Your task to perform on an android device: What's on my calendar today? Image 0: 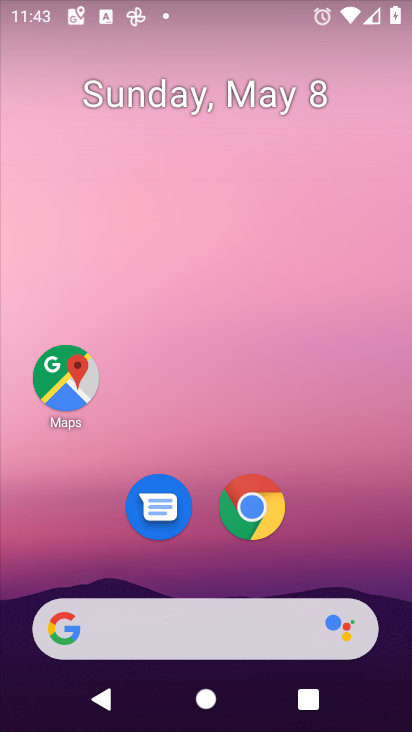
Step 0: drag from (276, 653) to (375, 26)
Your task to perform on an android device: What's on my calendar today? Image 1: 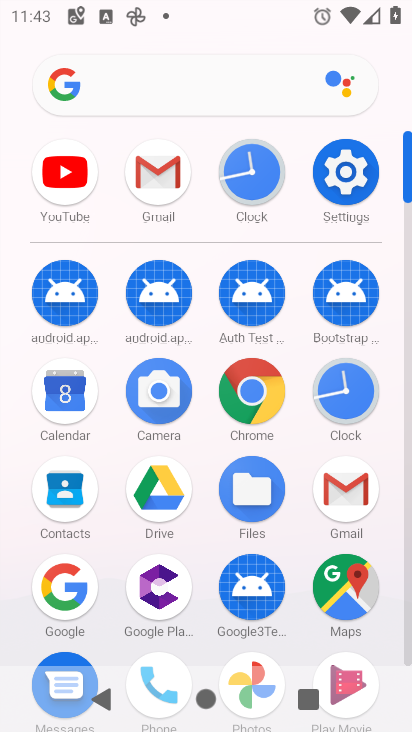
Step 1: click (56, 396)
Your task to perform on an android device: What's on my calendar today? Image 2: 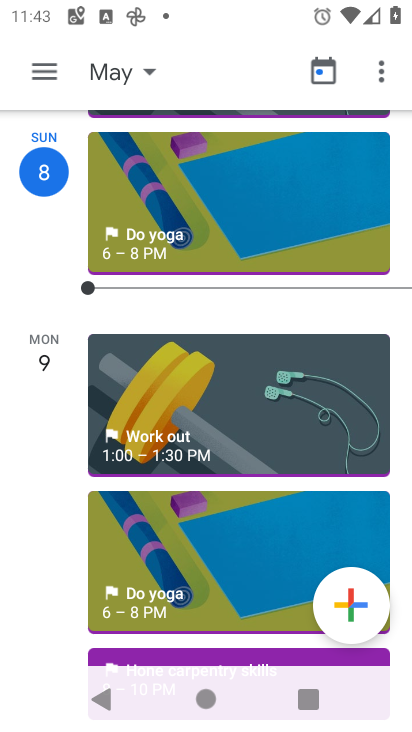
Step 2: click (111, 73)
Your task to perform on an android device: What's on my calendar today? Image 3: 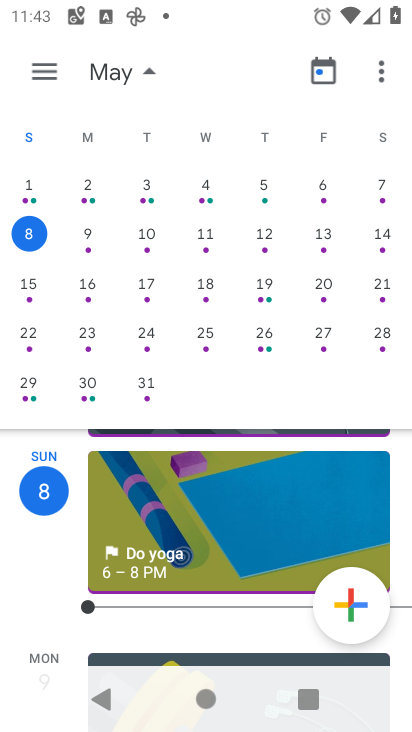
Step 3: task complete